Your task to perform on an android device: Open Chrome and go to the settings page Image 0: 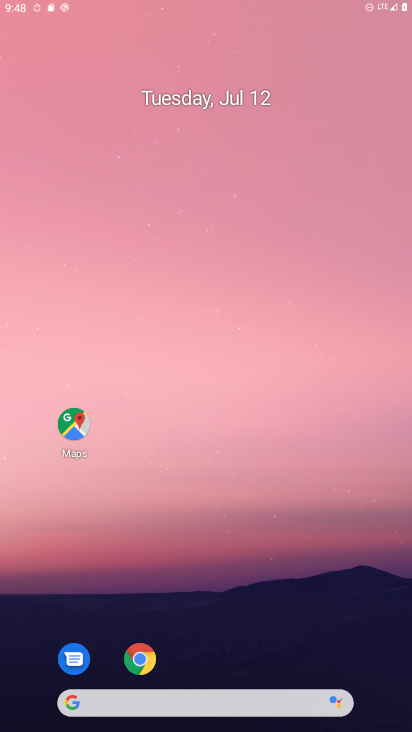
Step 0: drag from (378, 674) to (191, 16)
Your task to perform on an android device: Open Chrome and go to the settings page Image 1: 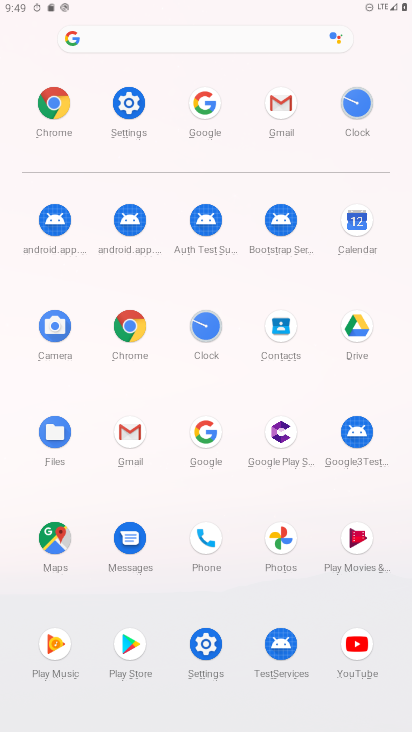
Step 1: click (106, 318)
Your task to perform on an android device: Open Chrome and go to the settings page Image 2: 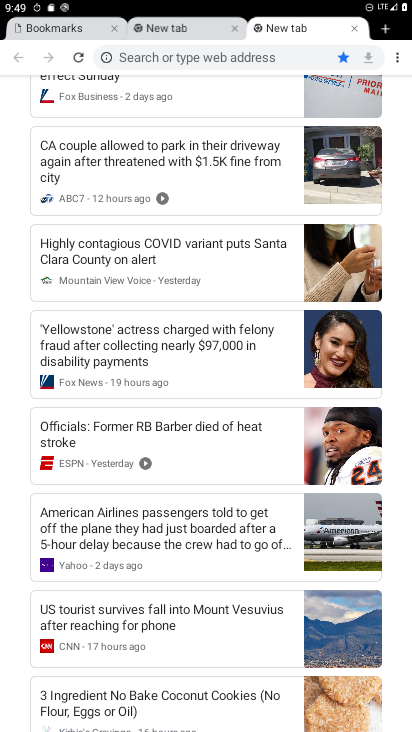
Step 2: click (397, 53)
Your task to perform on an android device: Open Chrome and go to the settings page Image 3: 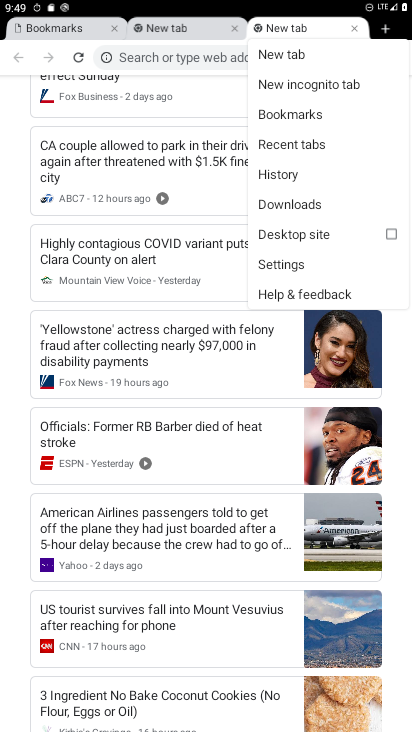
Step 3: click (283, 260)
Your task to perform on an android device: Open Chrome and go to the settings page Image 4: 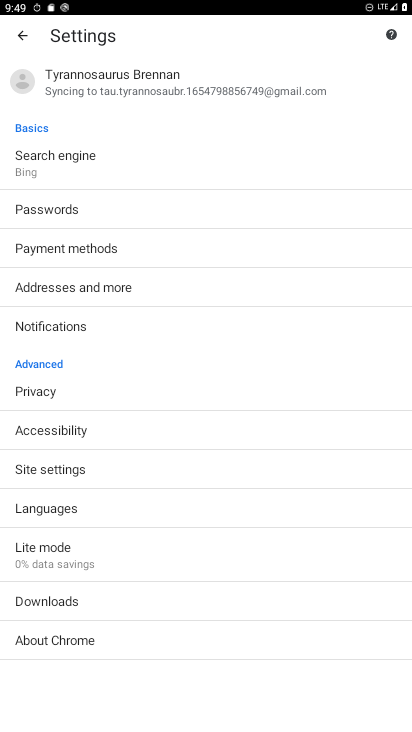
Step 4: task complete